Your task to perform on an android device: Search for the new nike air max shoes on Nike. Image 0: 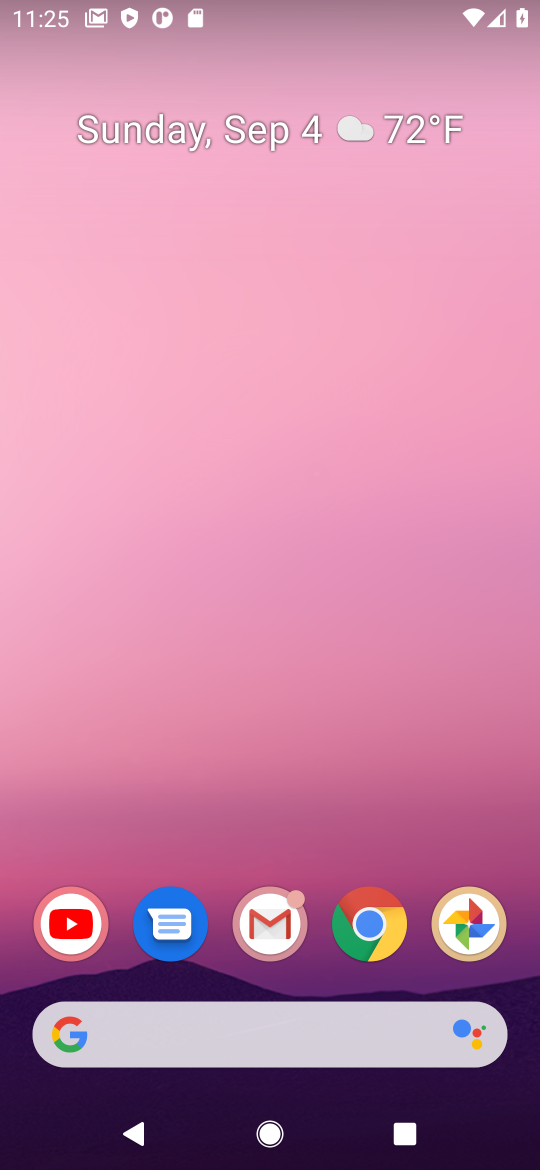
Step 0: press home button
Your task to perform on an android device: Search for the new nike air max shoes on Nike. Image 1: 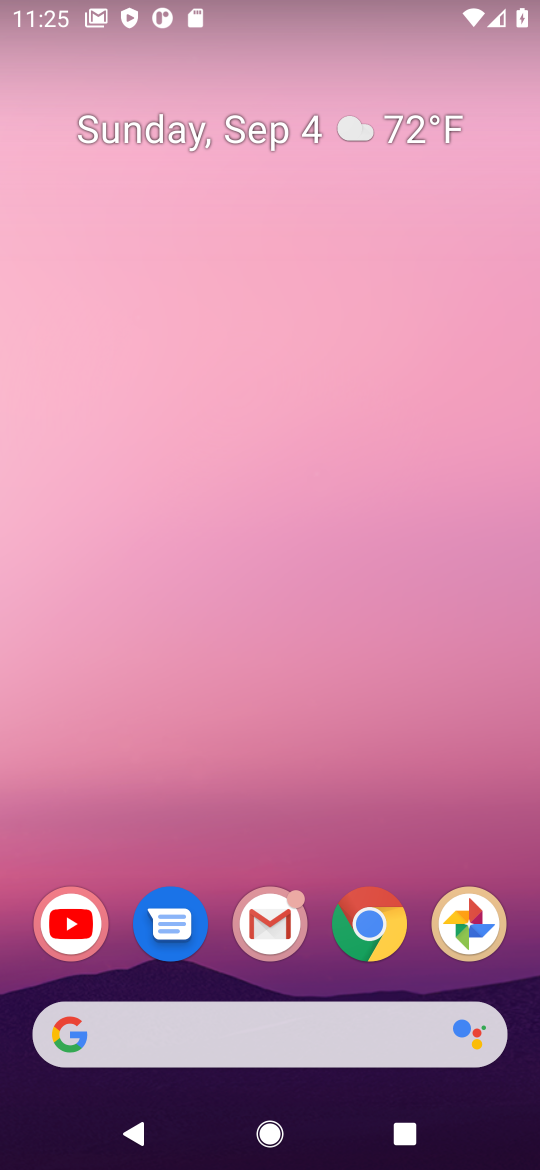
Step 1: drag from (325, 870) to (357, 110)
Your task to perform on an android device: Search for the new nike air max shoes on Nike. Image 2: 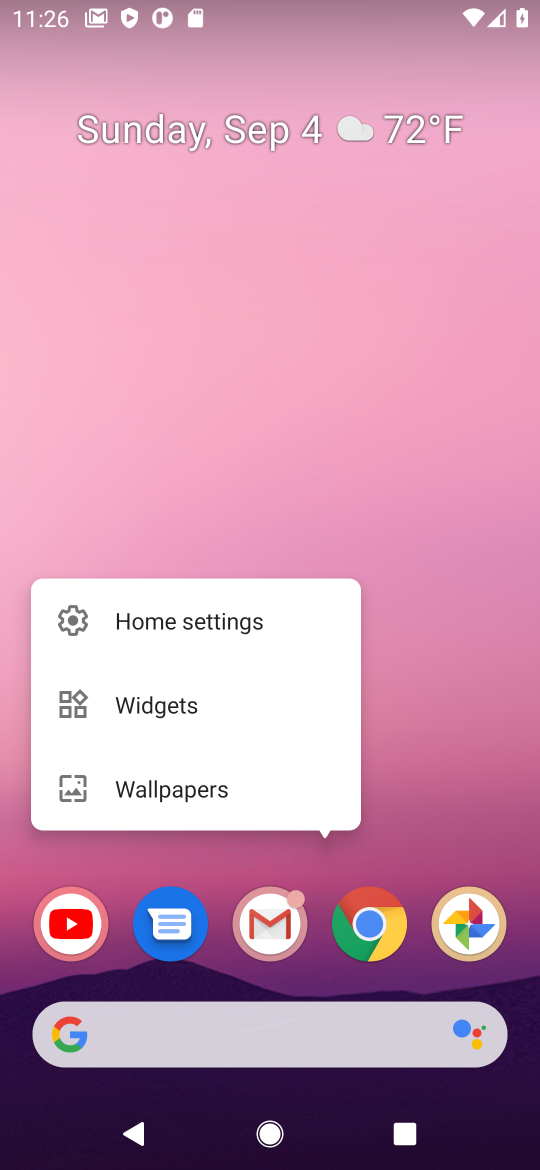
Step 2: click (401, 838)
Your task to perform on an android device: Search for the new nike air max shoes on Nike. Image 3: 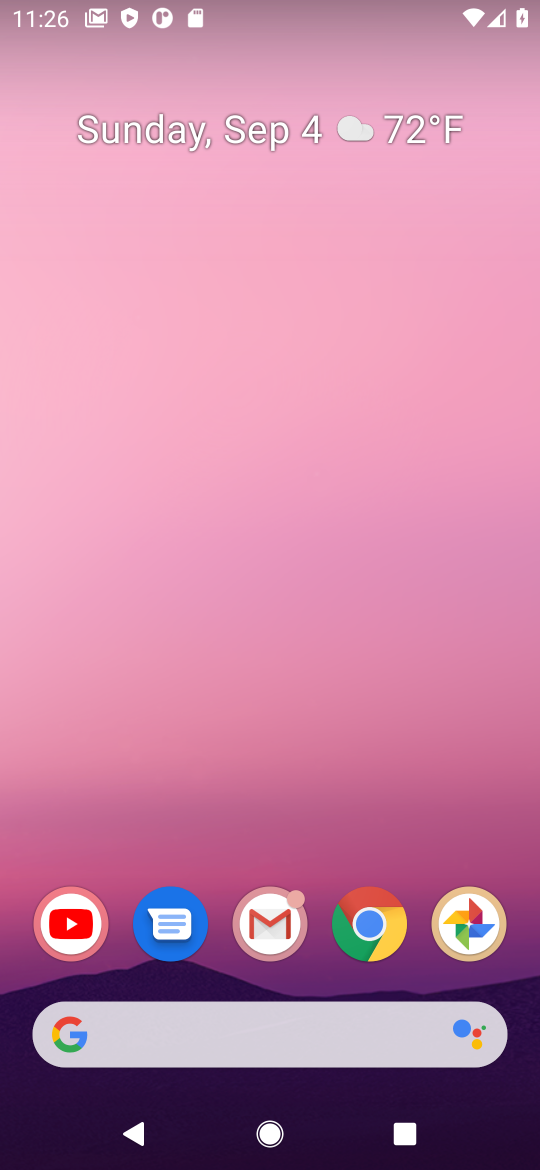
Step 3: click (361, 912)
Your task to perform on an android device: Search for the new nike air max shoes on Nike. Image 4: 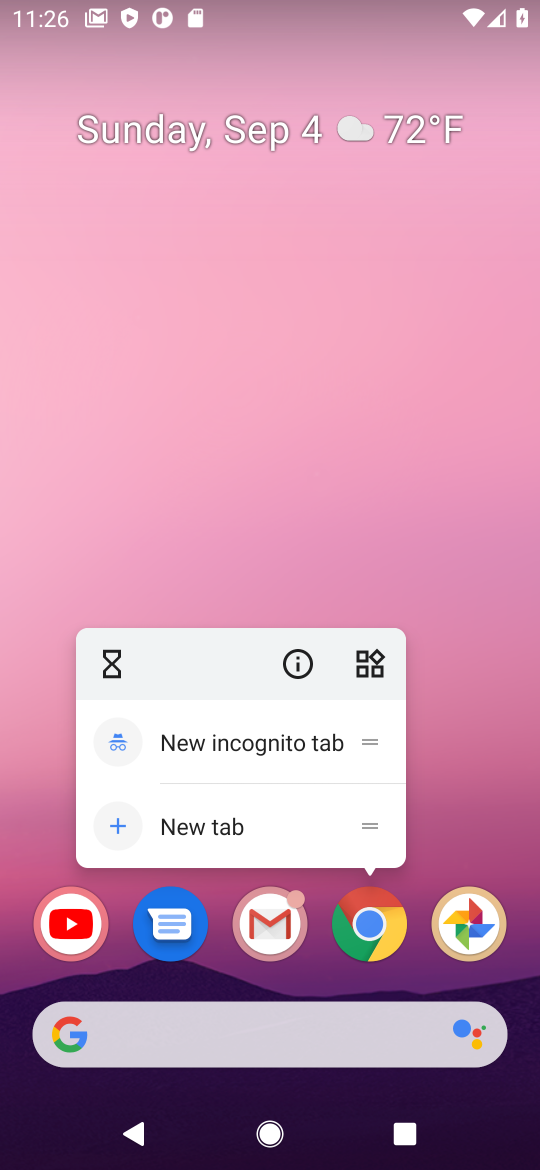
Step 4: click (457, 772)
Your task to perform on an android device: Search for the new nike air max shoes on Nike. Image 5: 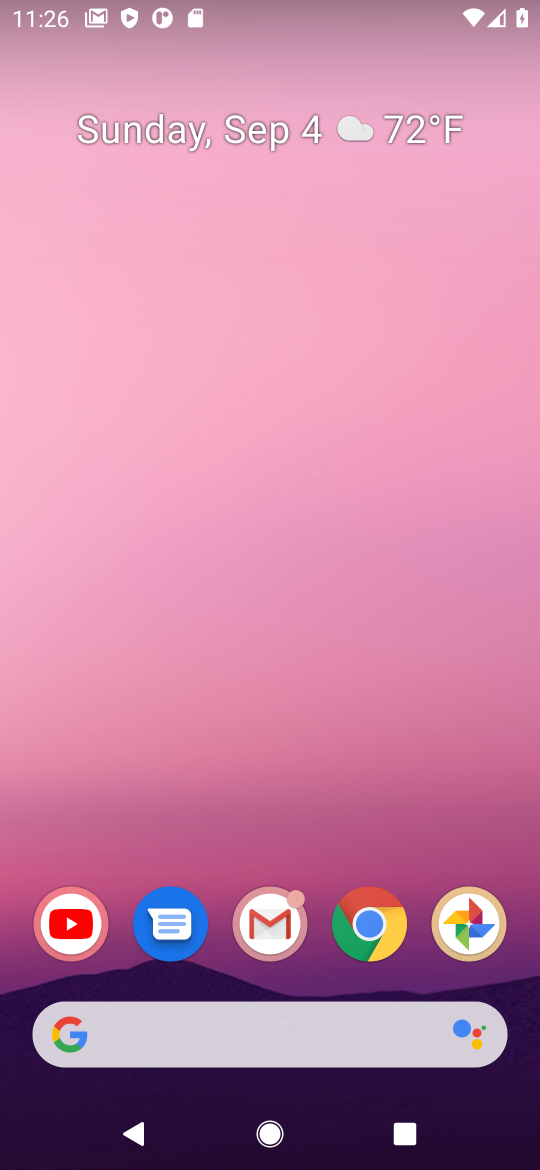
Step 5: click (451, 1)
Your task to perform on an android device: Search for the new nike air max shoes on Nike. Image 6: 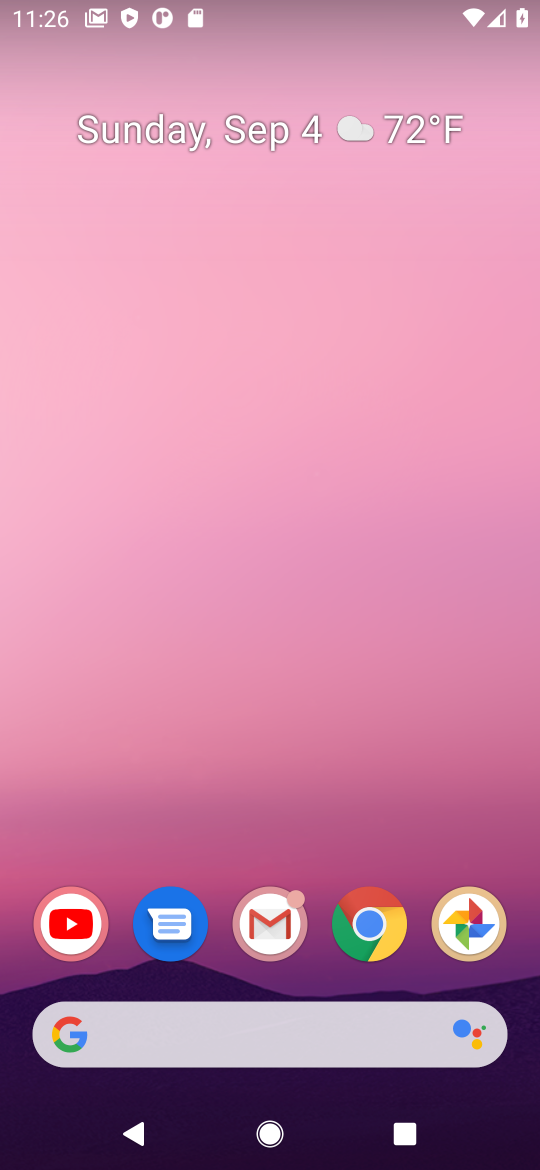
Step 6: drag from (320, 865) to (358, 22)
Your task to perform on an android device: Search for the new nike air max shoes on Nike. Image 7: 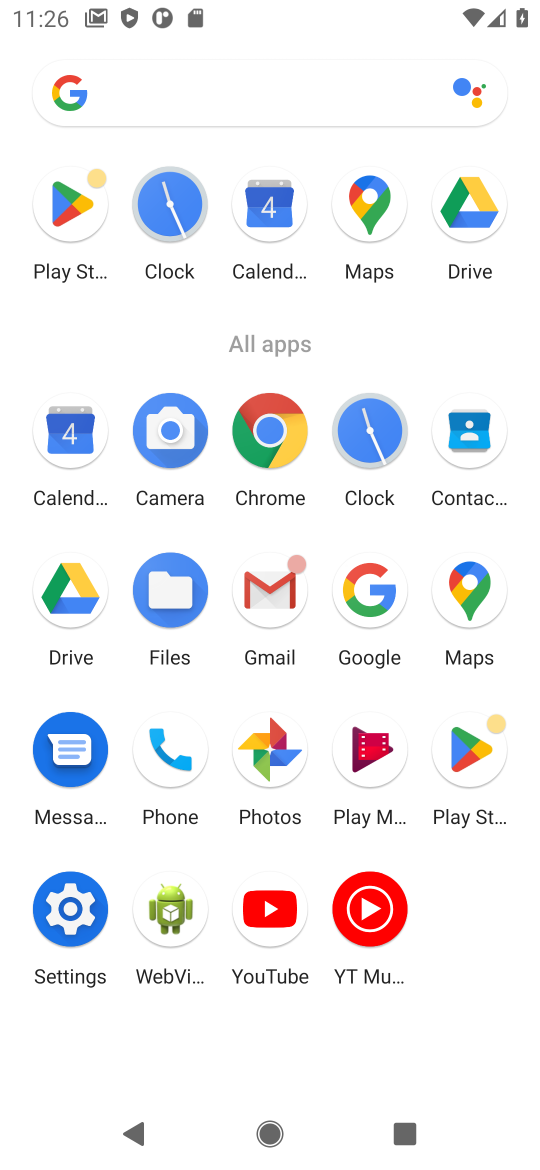
Step 7: click (262, 421)
Your task to perform on an android device: Search for the new nike air max shoes on Nike. Image 8: 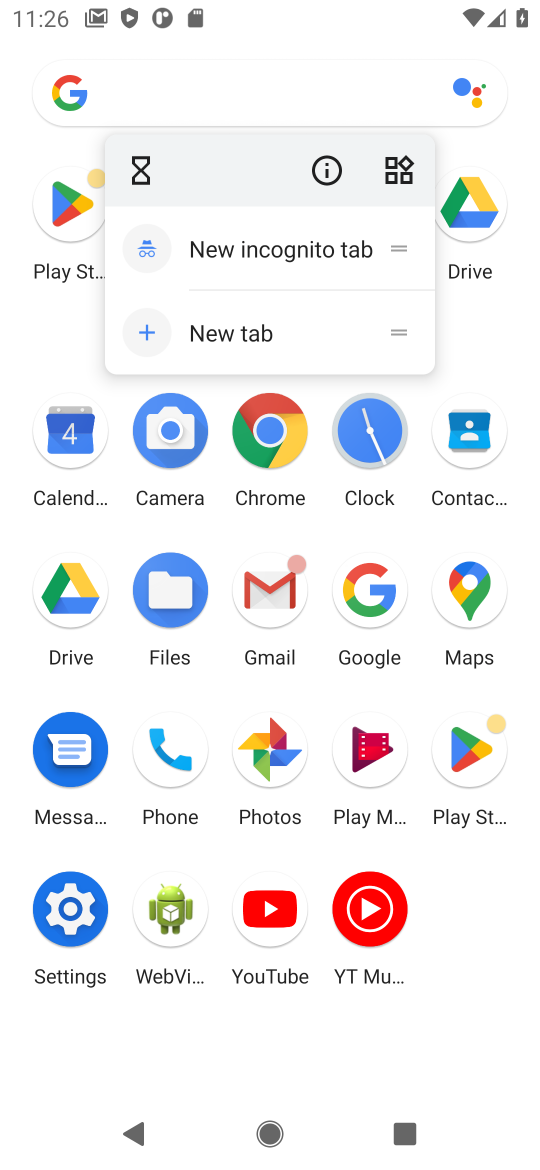
Step 8: click (263, 419)
Your task to perform on an android device: Search for the new nike air max shoes on Nike. Image 9: 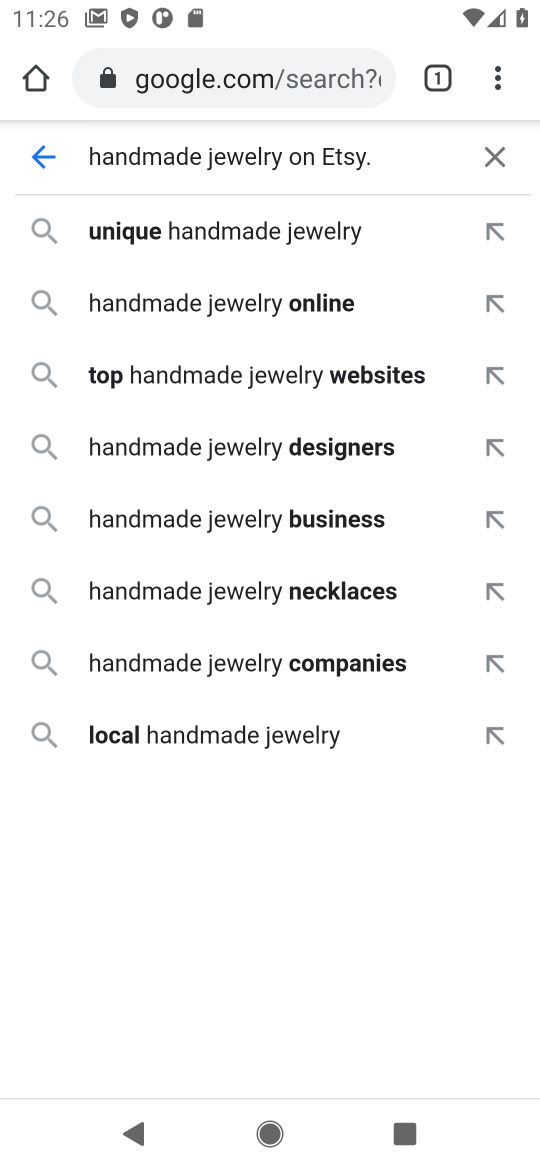
Step 9: click (500, 157)
Your task to perform on an android device: Search for the new nike air max shoes on Nike. Image 10: 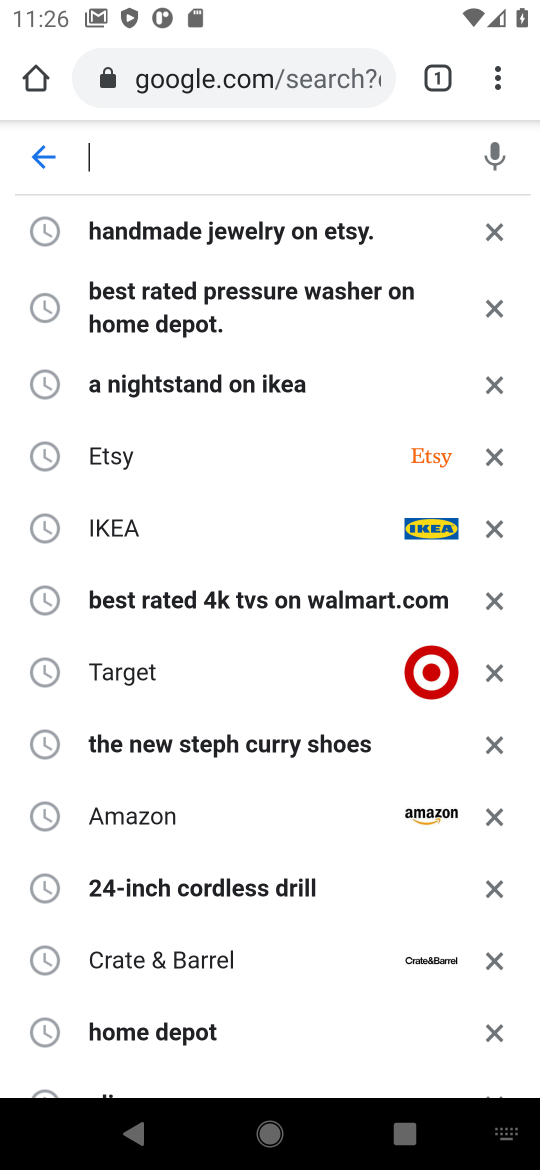
Step 10: click (247, 66)
Your task to perform on an android device: Search for the new nike air max shoes on Nike. Image 11: 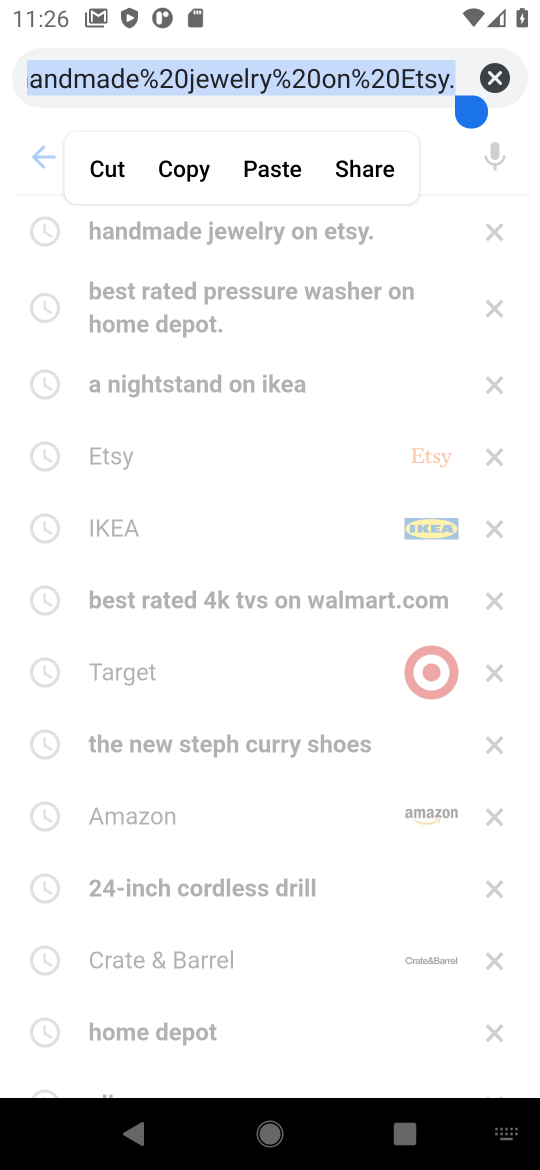
Step 11: click (490, 69)
Your task to perform on an android device: Search for the new nike air max shoes on Nike. Image 12: 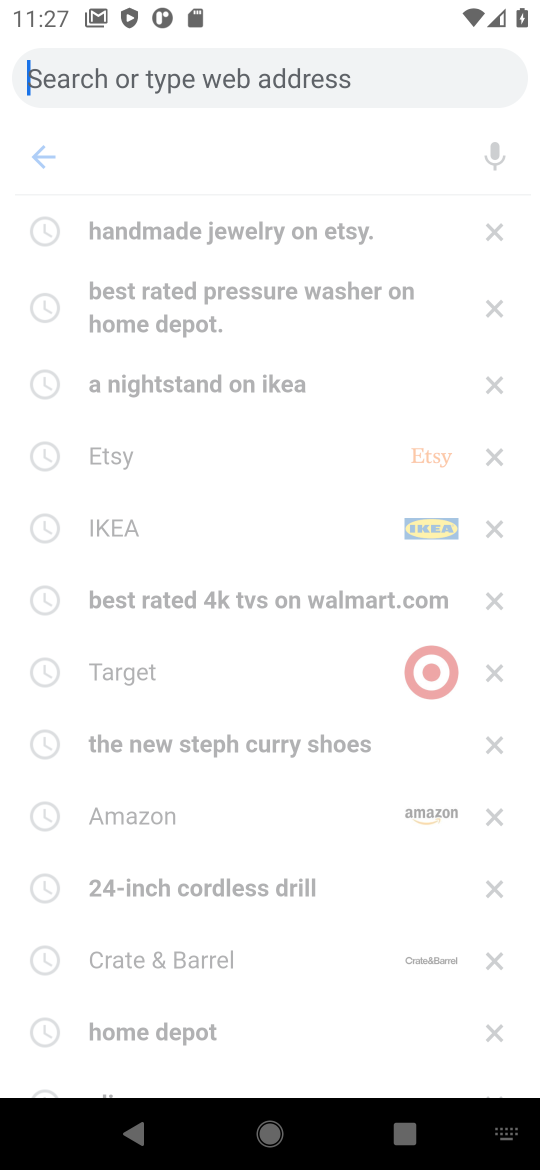
Step 12: type "new nike air max shoes on Nike"
Your task to perform on an android device: Search for the new nike air max shoes on Nike. Image 13: 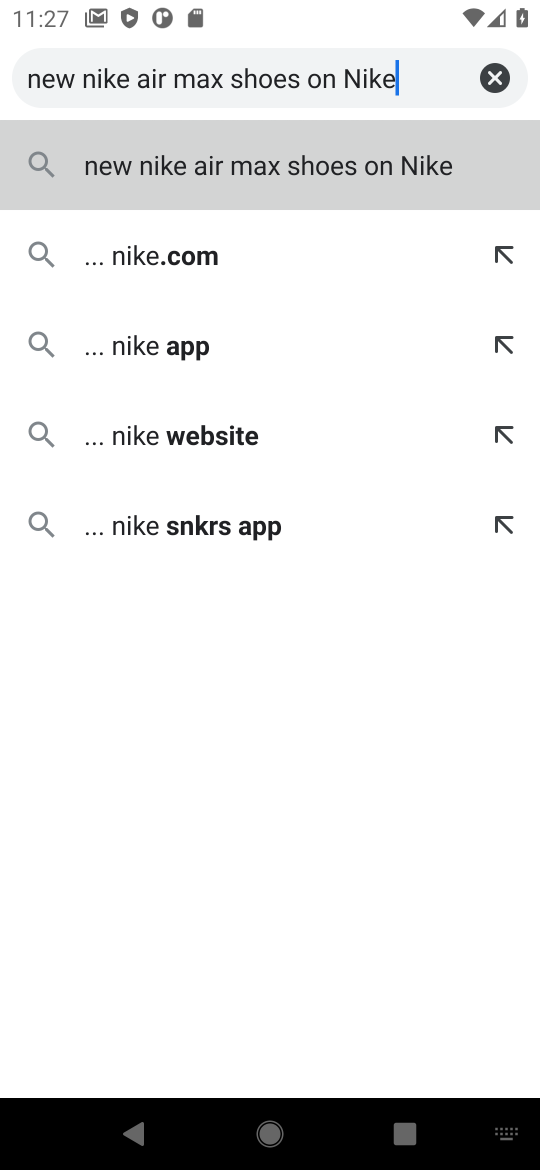
Step 13: click (226, 178)
Your task to perform on an android device: Search for the new nike air max shoes on Nike. Image 14: 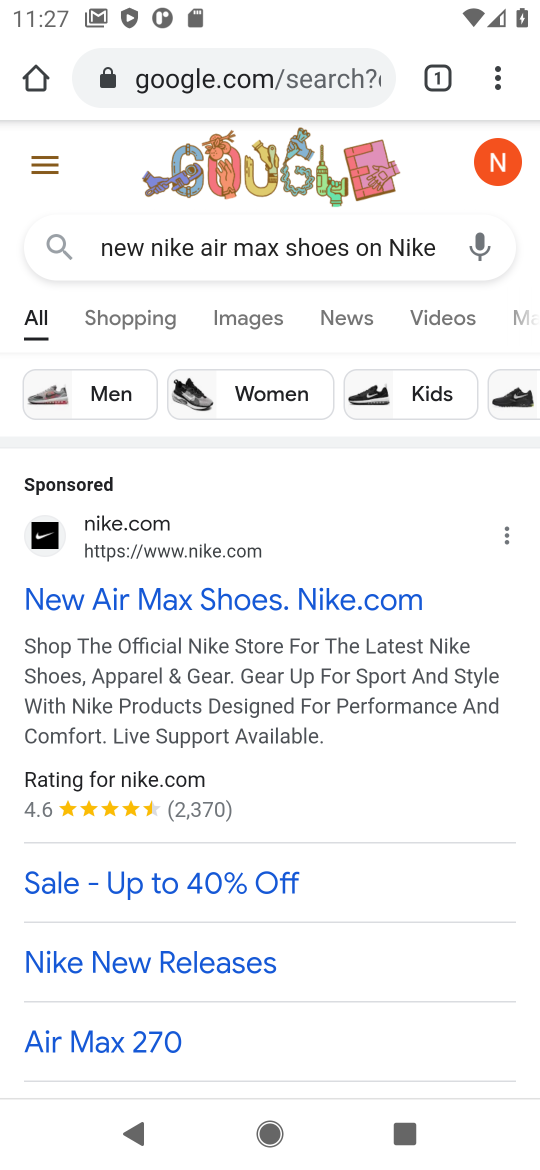
Step 14: drag from (317, 1023) to (364, 290)
Your task to perform on an android device: Search for the new nike air max shoes on Nike. Image 15: 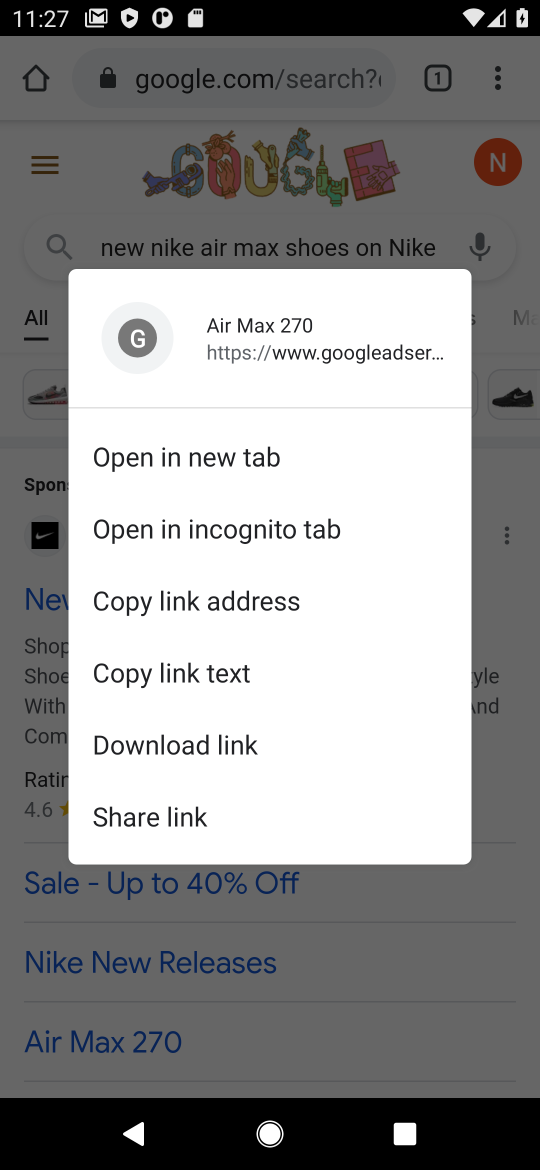
Step 15: click (207, 995)
Your task to perform on an android device: Search for the new nike air max shoes on Nike. Image 16: 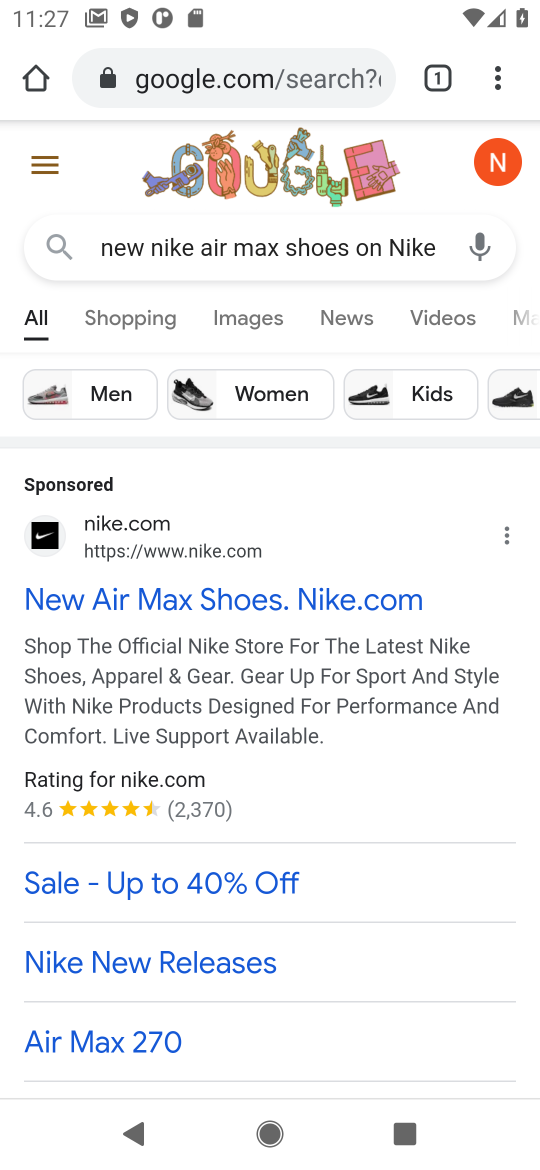
Step 16: drag from (241, 489) to (265, 58)
Your task to perform on an android device: Search for the new nike air max shoes on Nike. Image 17: 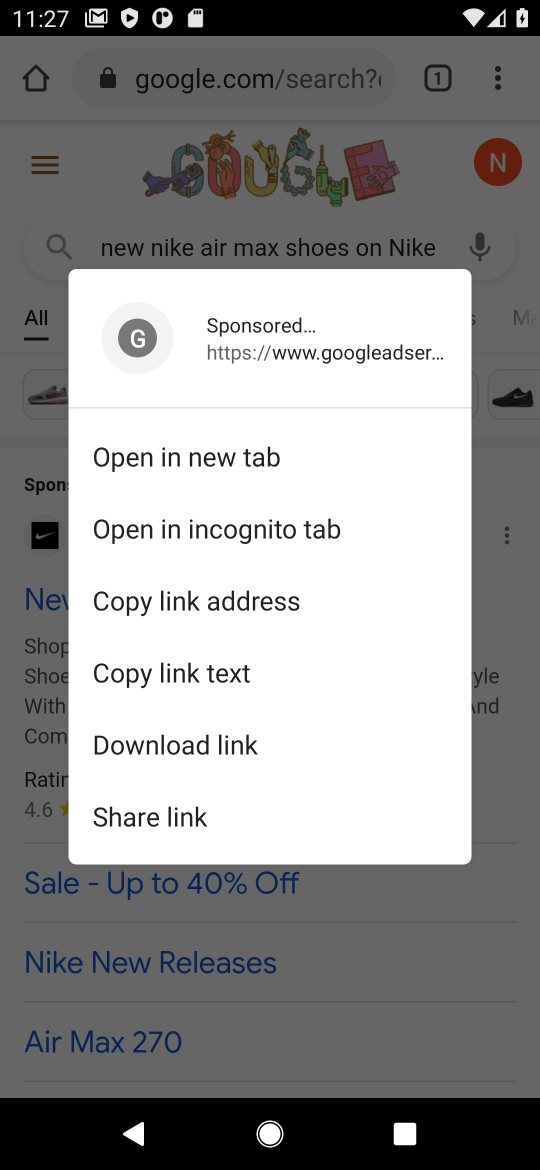
Step 17: click (128, 986)
Your task to perform on an android device: Search for the new nike air max shoes on Nike. Image 18: 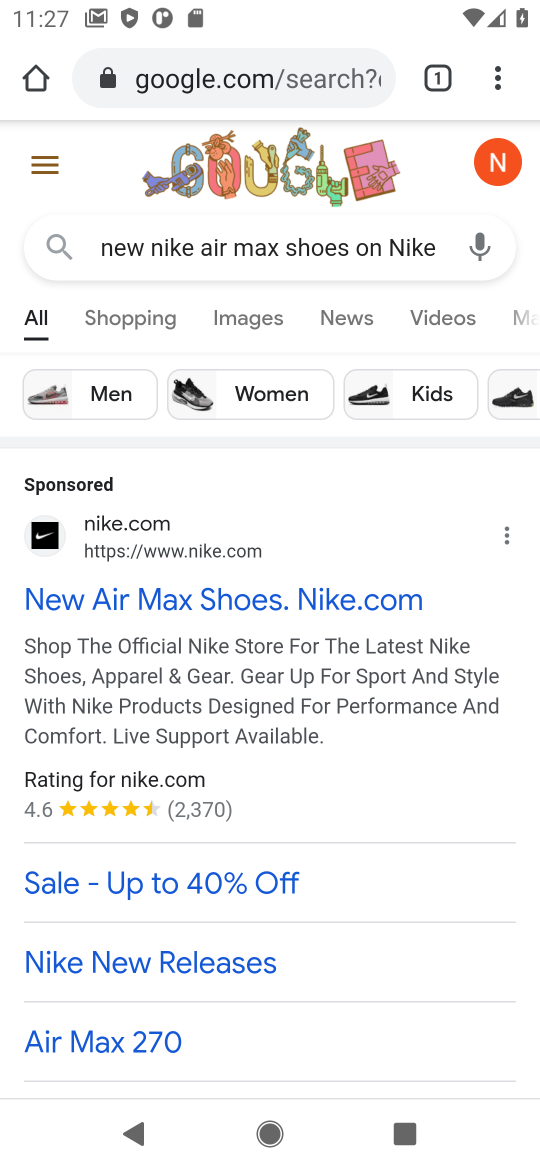
Step 18: drag from (347, 762) to (388, 161)
Your task to perform on an android device: Search for the new nike air max shoes on Nike. Image 19: 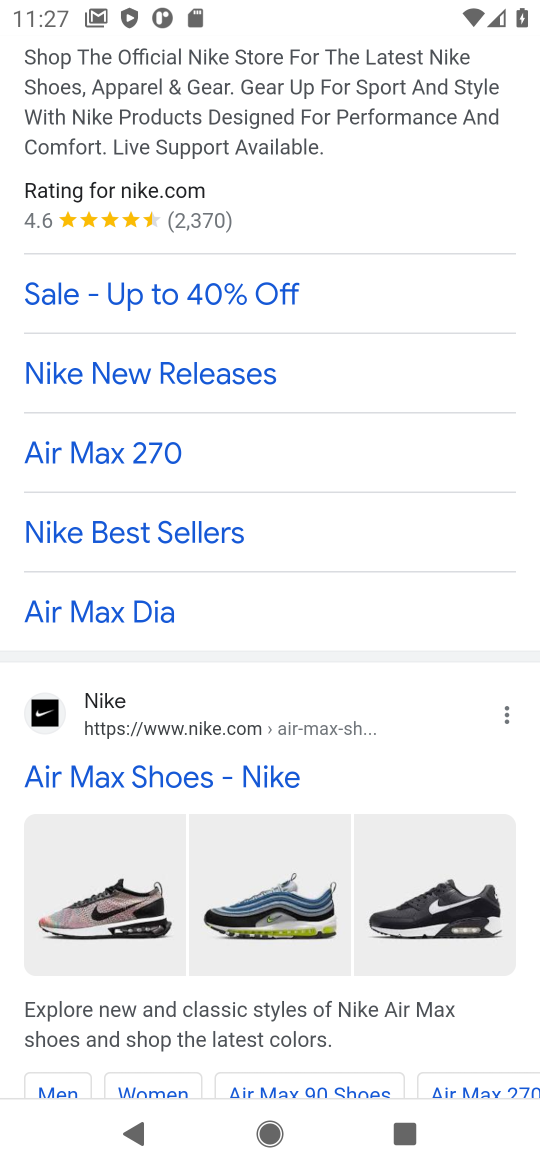
Step 19: drag from (402, 904) to (442, 172)
Your task to perform on an android device: Search for the new nike air max shoes on Nike. Image 20: 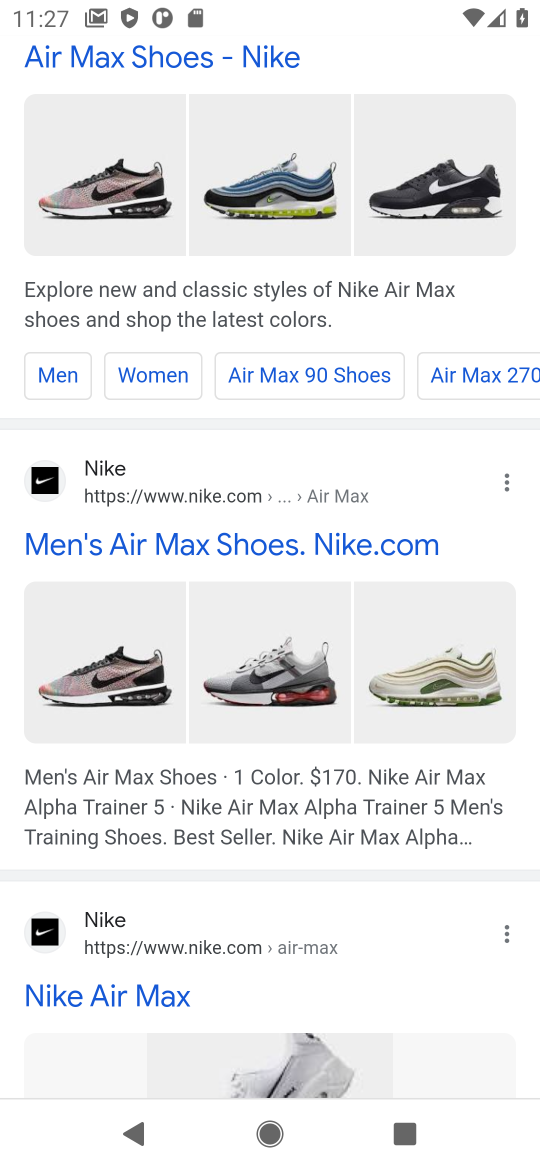
Step 20: drag from (393, 1004) to (413, 262)
Your task to perform on an android device: Search for the new nike air max shoes on Nike. Image 21: 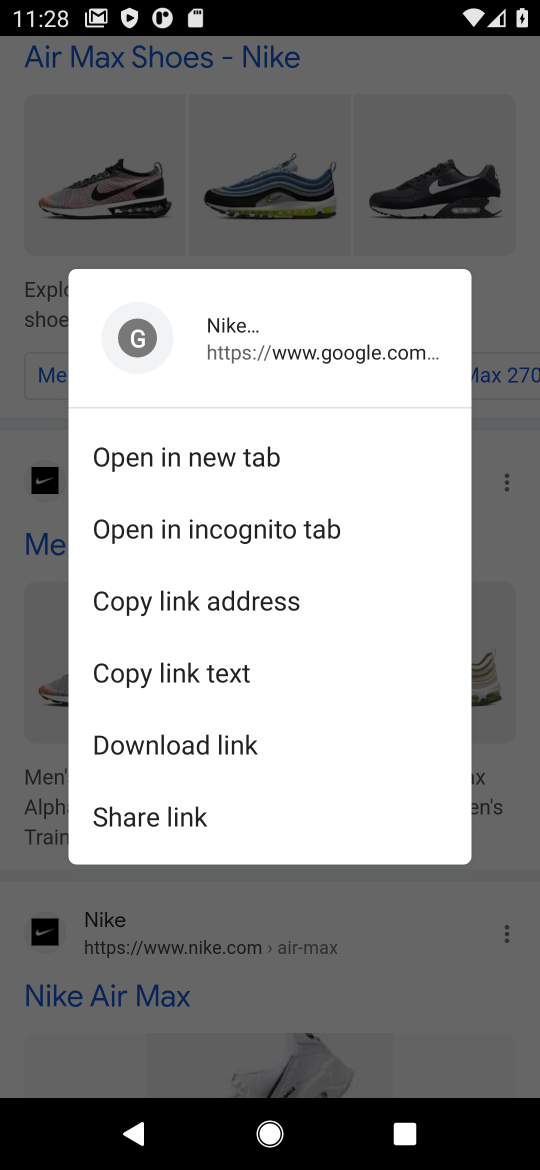
Step 21: click (220, 981)
Your task to perform on an android device: Search for the new nike air max shoes on Nike. Image 22: 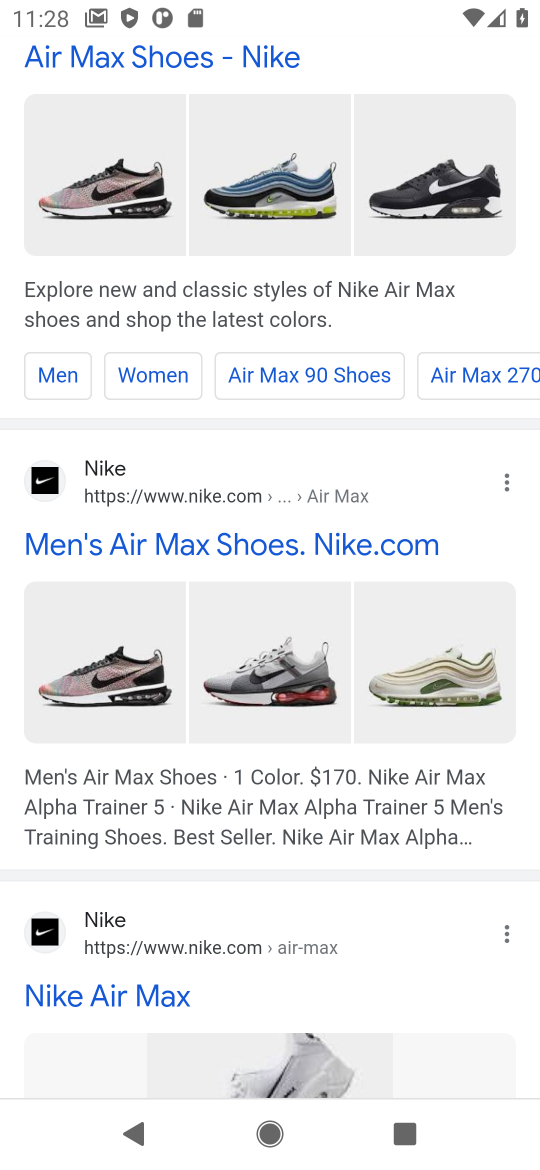
Step 22: drag from (377, 951) to (398, 161)
Your task to perform on an android device: Search for the new nike air max shoes on Nike. Image 23: 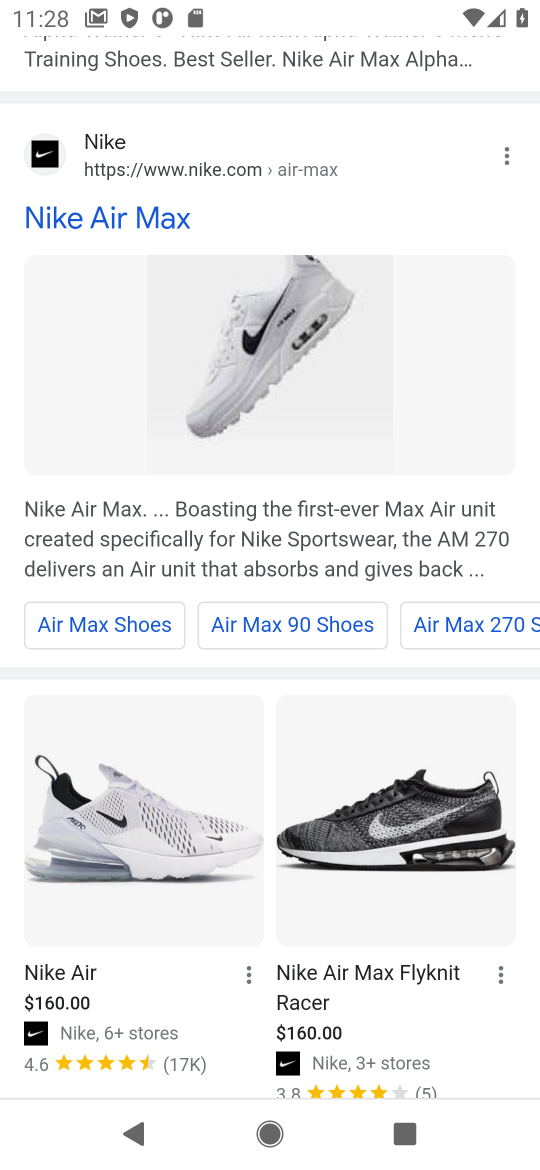
Step 23: drag from (251, 988) to (280, 346)
Your task to perform on an android device: Search for the new nike air max shoes on Nike. Image 24: 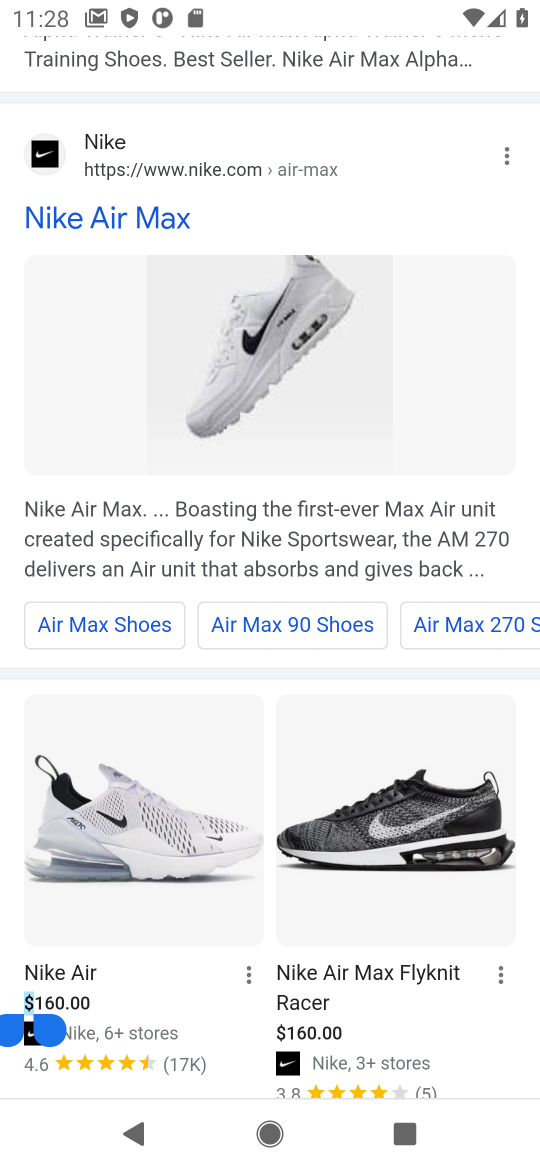
Step 24: click (457, 307)
Your task to perform on an android device: Search for the new nike air max shoes on Nike. Image 25: 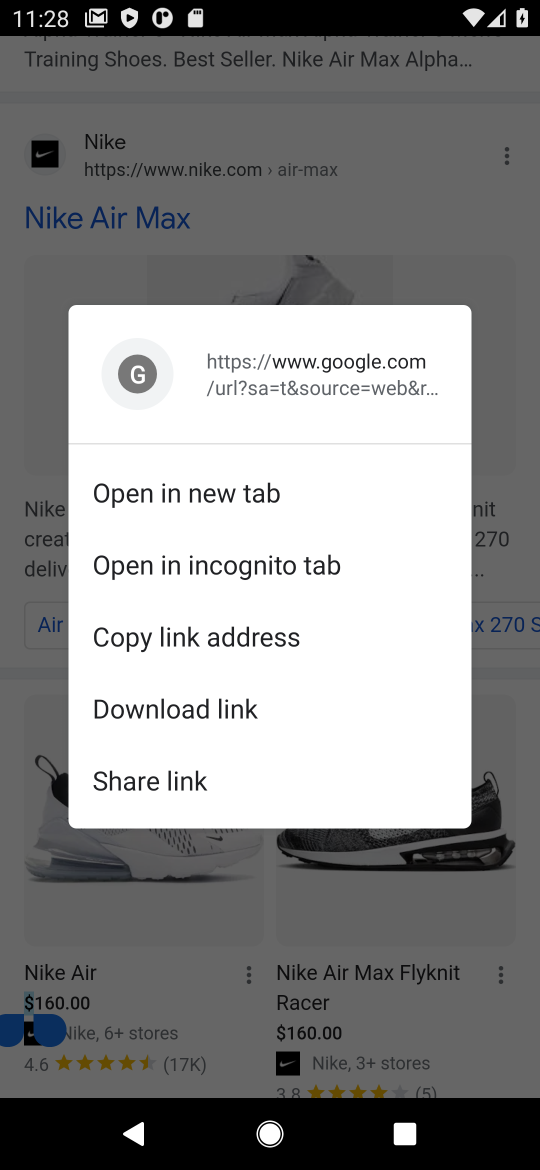
Step 25: click (153, 983)
Your task to perform on an android device: Search for the new nike air max shoes on Nike. Image 26: 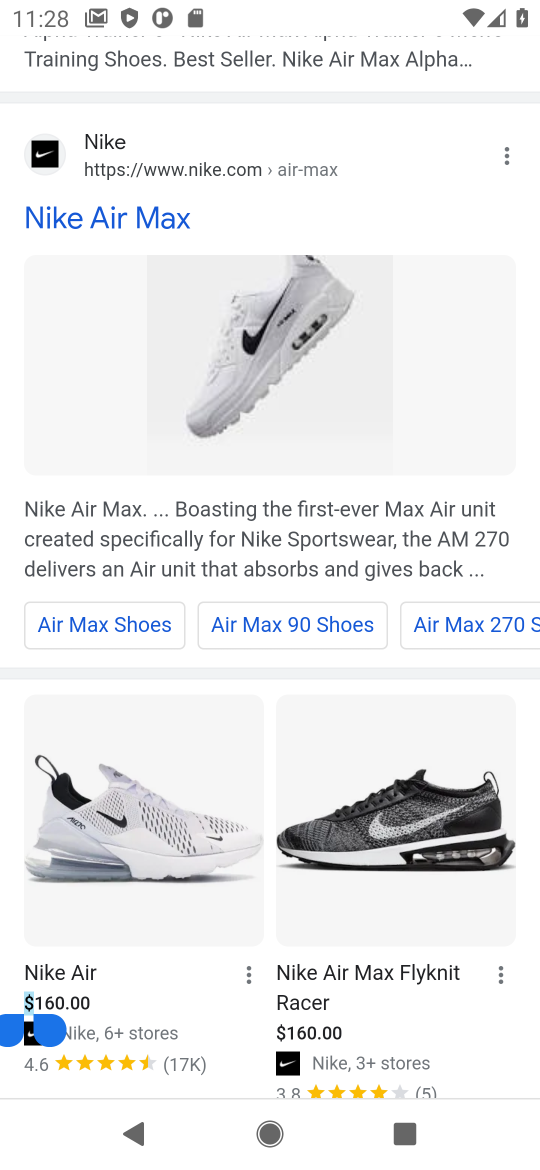
Step 26: drag from (287, 897) to (333, 371)
Your task to perform on an android device: Search for the new nike air max shoes on Nike. Image 27: 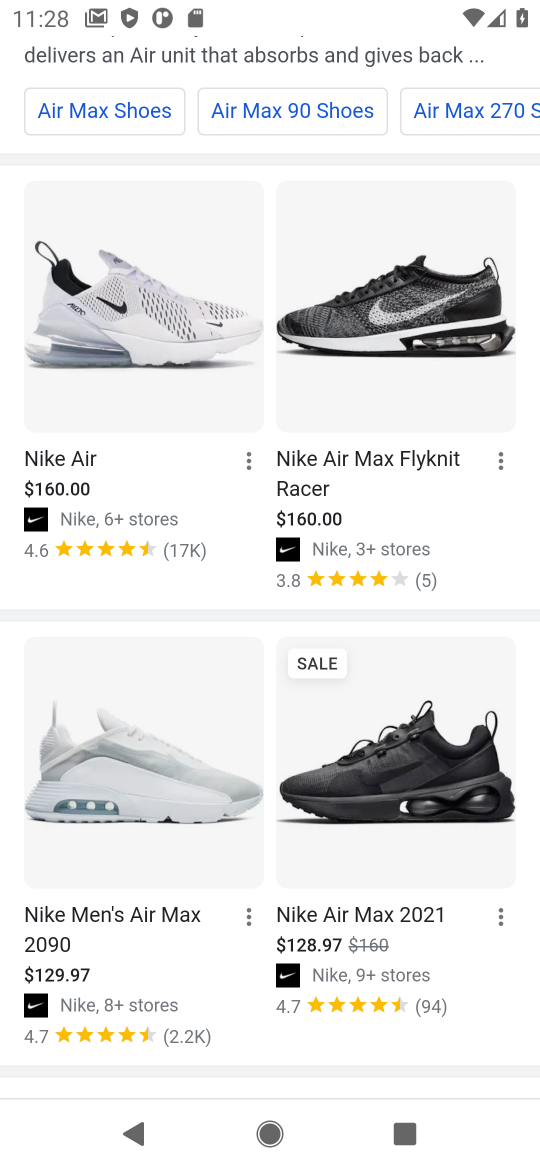
Step 27: click (295, 431)
Your task to perform on an android device: Search for the new nike air max shoes on Nike. Image 28: 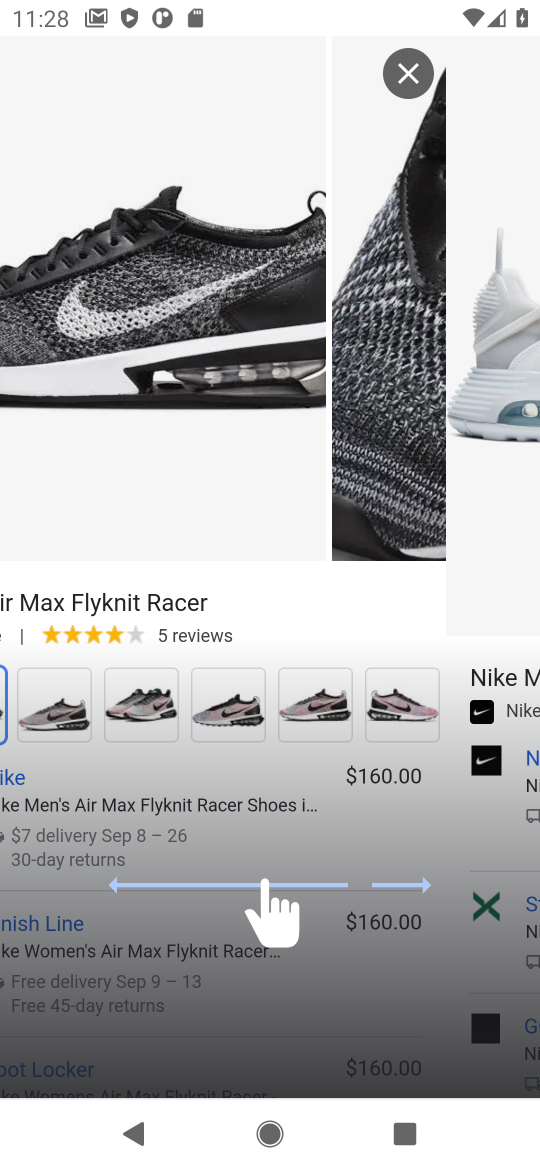
Step 28: click (498, 67)
Your task to perform on an android device: Search for the new nike air max shoes on Nike. Image 29: 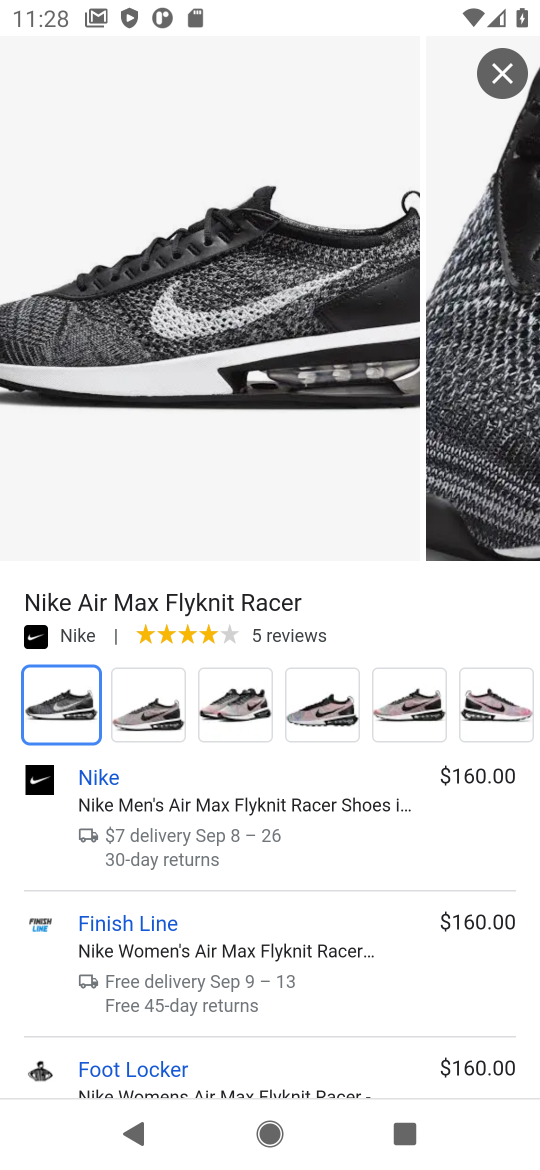
Step 29: click (497, 64)
Your task to perform on an android device: Search for the new nike air max shoes on Nike. Image 30: 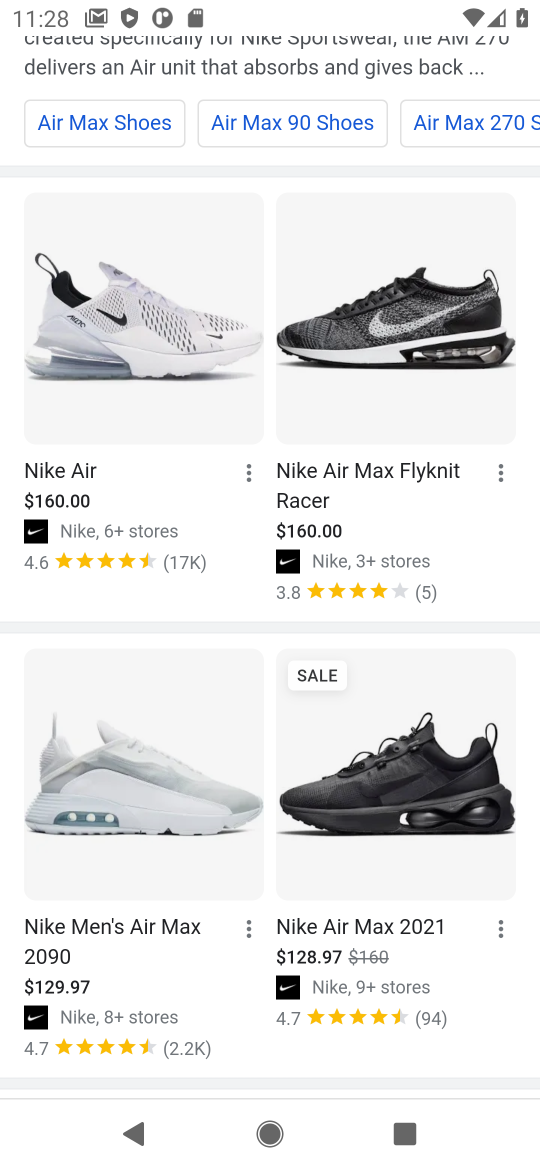
Step 30: click (284, 85)
Your task to perform on an android device: Search for the new nike air max shoes on Nike. Image 31: 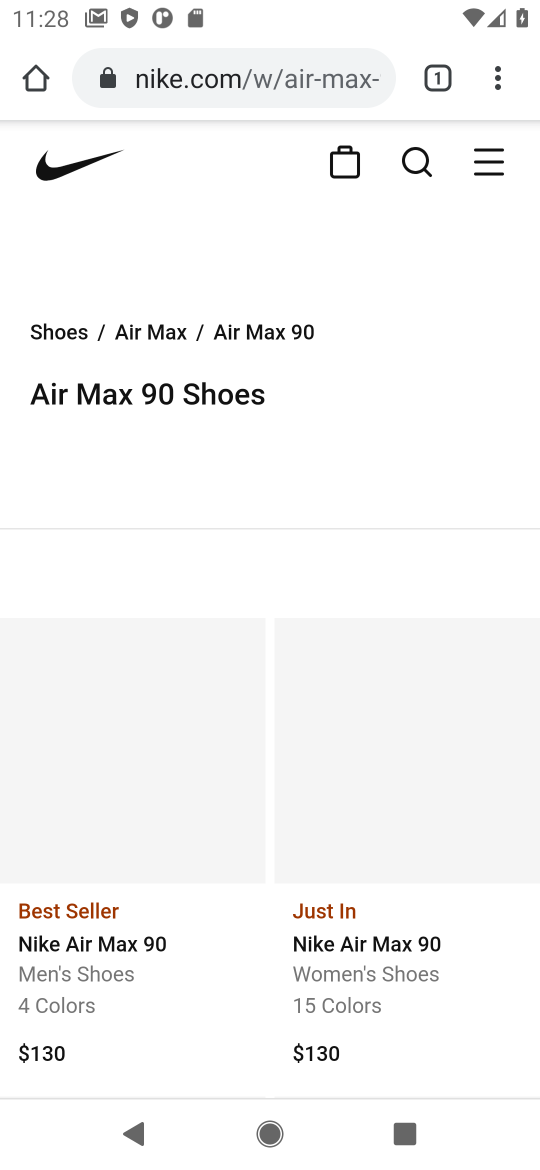
Step 31: drag from (269, 774) to (300, 269)
Your task to perform on an android device: Search for the new nike air max shoes on Nike. Image 32: 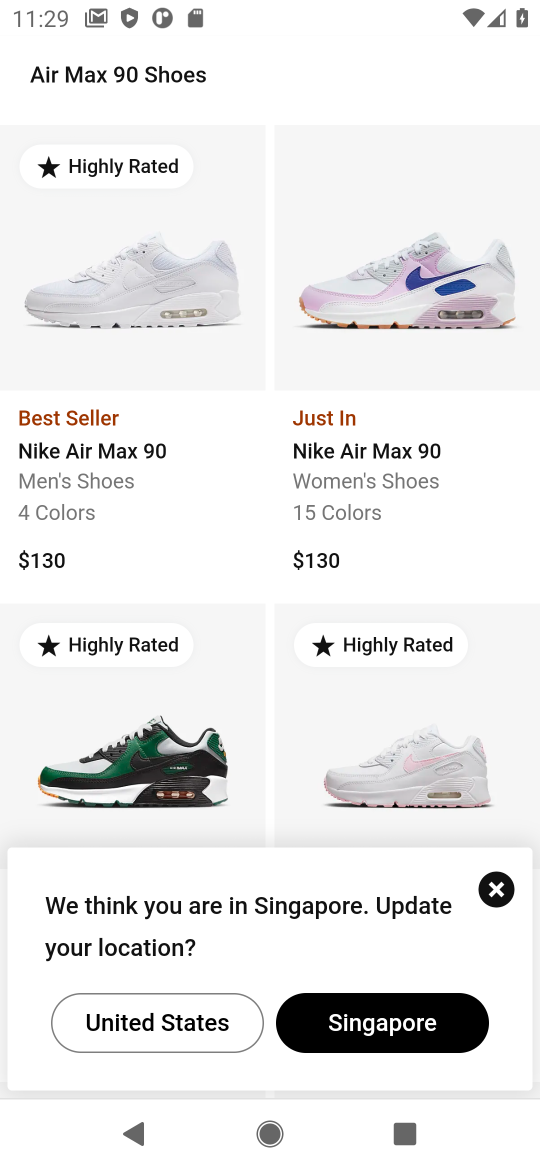
Step 32: drag from (268, 770) to (289, 193)
Your task to perform on an android device: Search for the new nike air max shoes on Nike. Image 33: 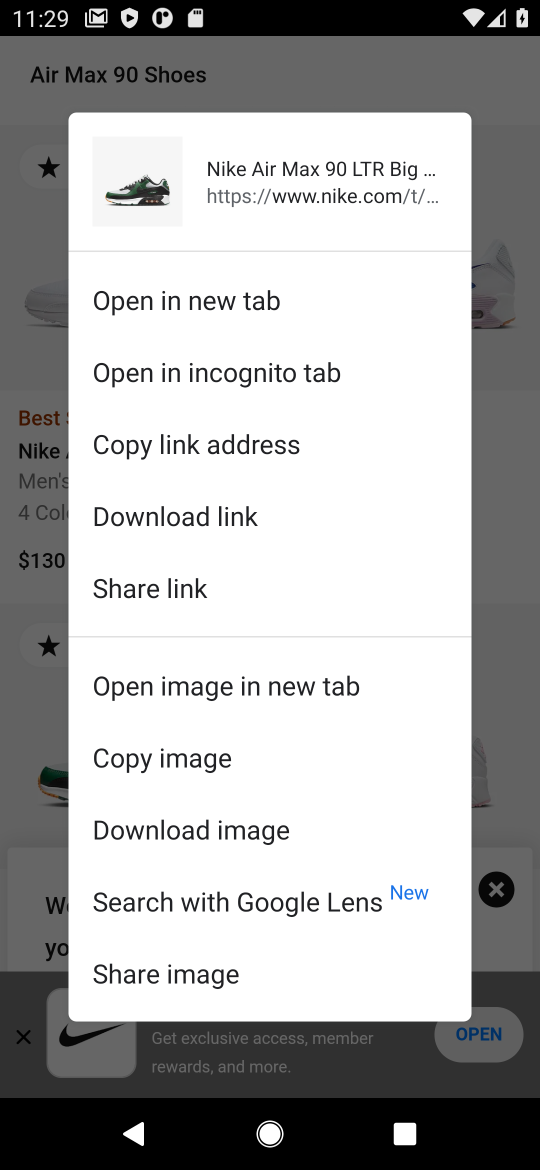
Step 33: click (493, 881)
Your task to perform on an android device: Search for the new nike air max shoes on Nike. Image 34: 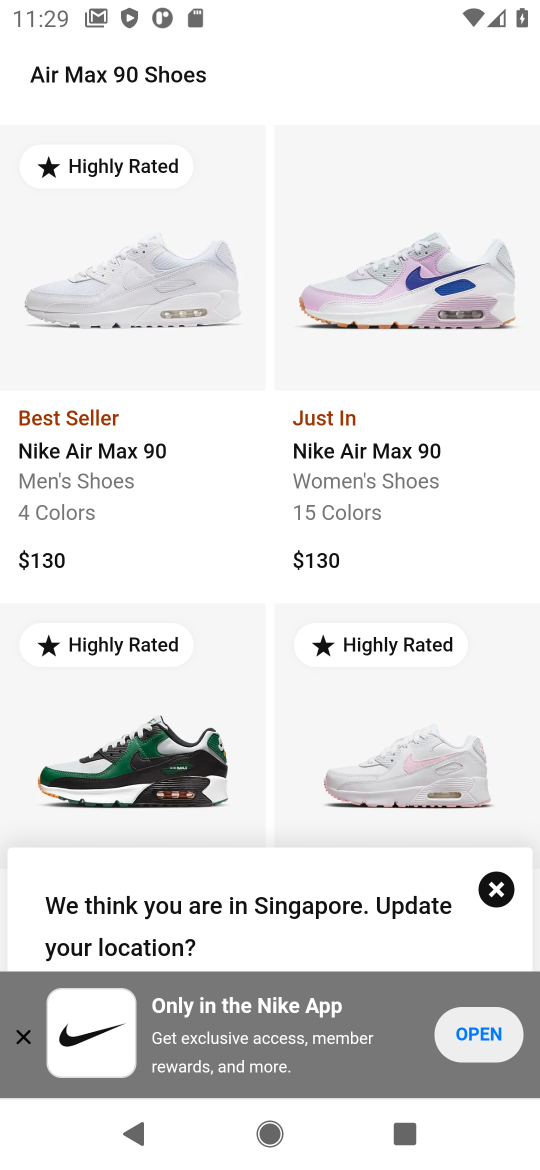
Step 34: click (496, 887)
Your task to perform on an android device: Search for the new nike air max shoes on Nike. Image 35: 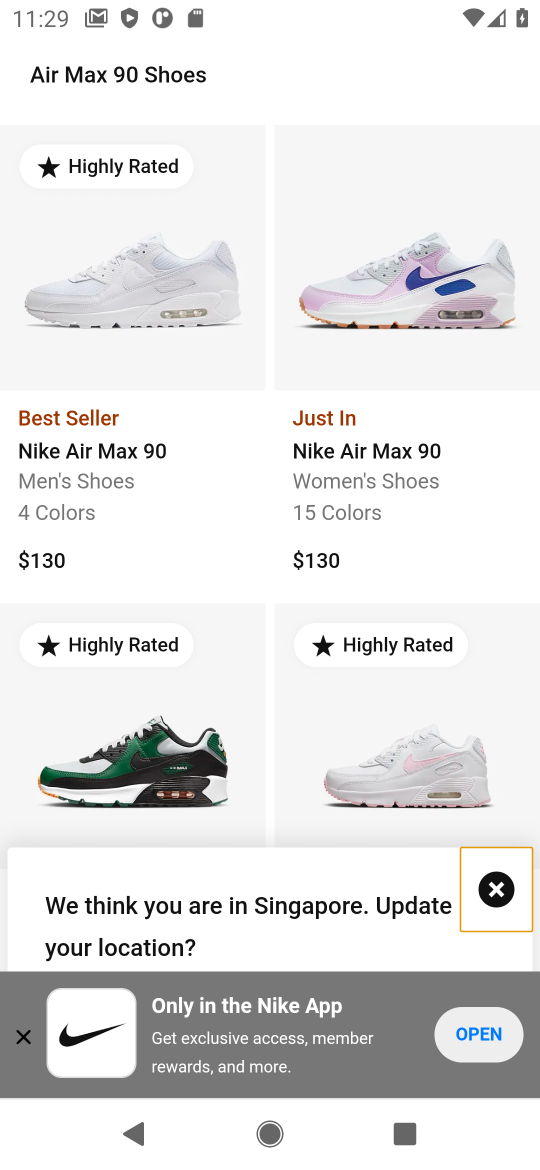
Step 35: task complete